Your task to perform on an android device: Turn off the flashlight Image 0: 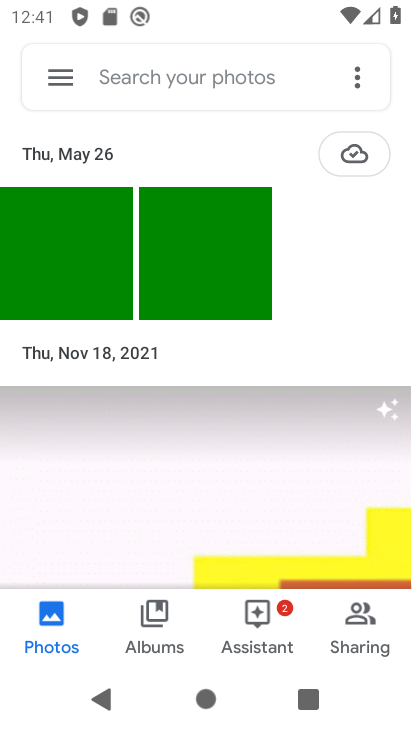
Step 0: drag from (271, 2) to (233, 685)
Your task to perform on an android device: Turn off the flashlight Image 1: 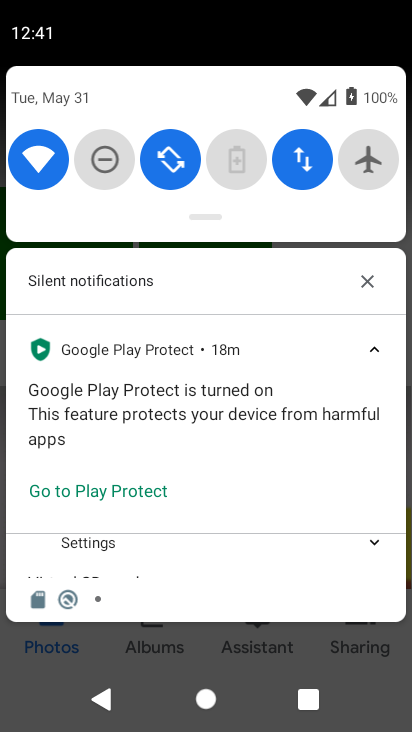
Step 1: task complete